Your task to perform on an android device: turn on javascript in the chrome app Image 0: 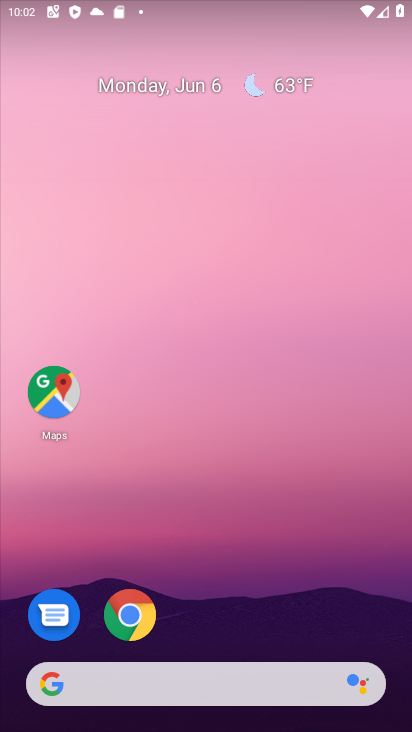
Step 0: click (132, 624)
Your task to perform on an android device: turn on javascript in the chrome app Image 1: 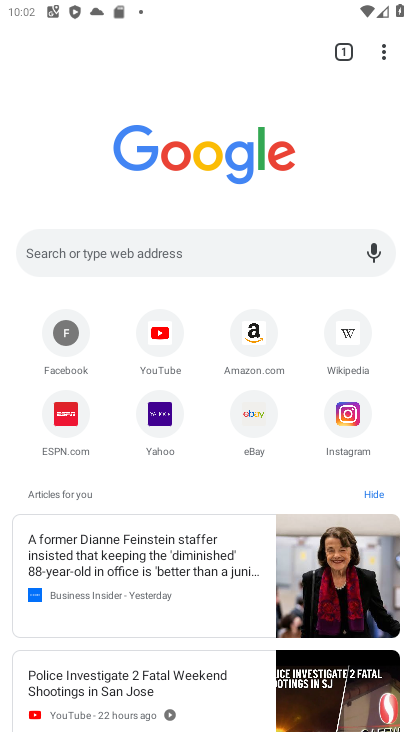
Step 1: drag from (383, 42) to (200, 439)
Your task to perform on an android device: turn on javascript in the chrome app Image 2: 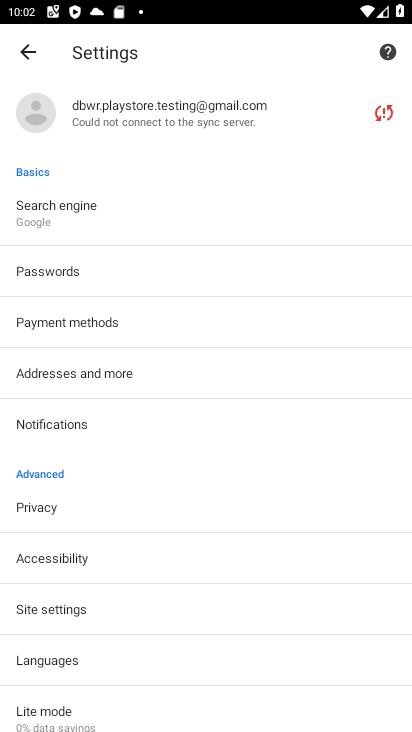
Step 2: click (106, 604)
Your task to perform on an android device: turn on javascript in the chrome app Image 3: 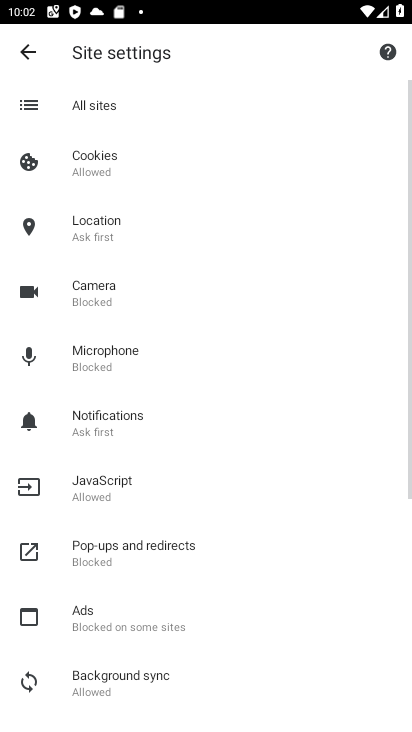
Step 3: click (123, 476)
Your task to perform on an android device: turn on javascript in the chrome app Image 4: 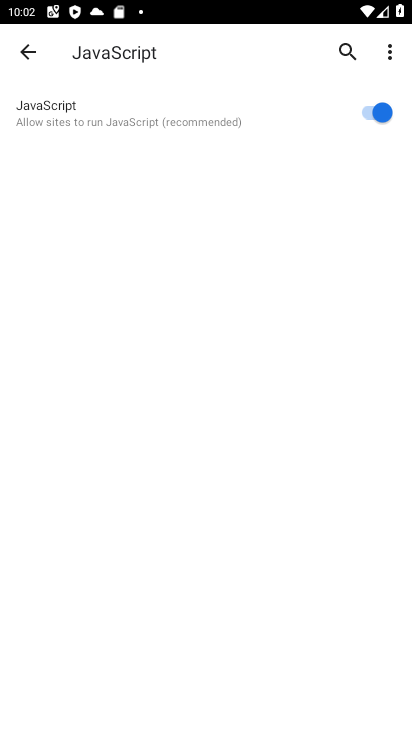
Step 4: task complete